Your task to perform on an android device: Go to sound settings Image 0: 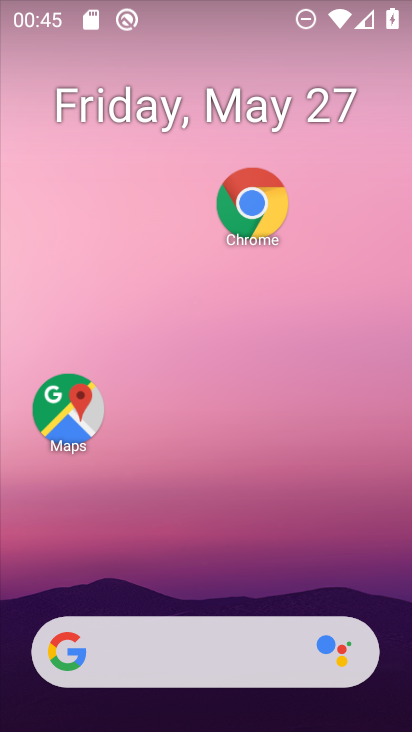
Step 0: drag from (173, 597) to (29, 52)
Your task to perform on an android device: Go to sound settings Image 1: 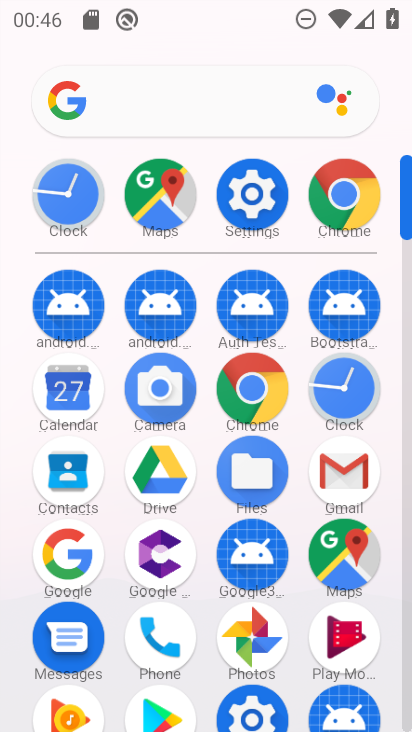
Step 1: click (243, 710)
Your task to perform on an android device: Go to sound settings Image 2: 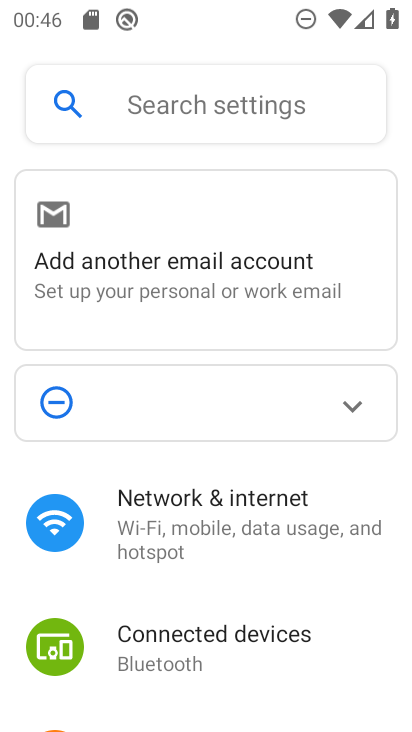
Step 2: drag from (185, 690) to (126, 131)
Your task to perform on an android device: Go to sound settings Image 3: 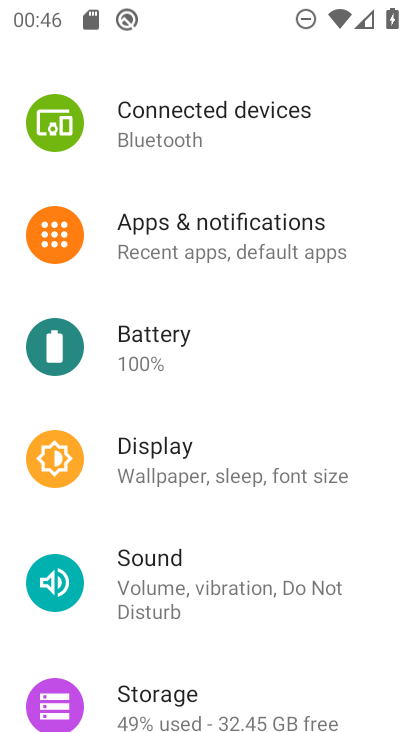
Step 3: click (119, 584)
Your task to perform on an android device: Go to sound settings Image 4: 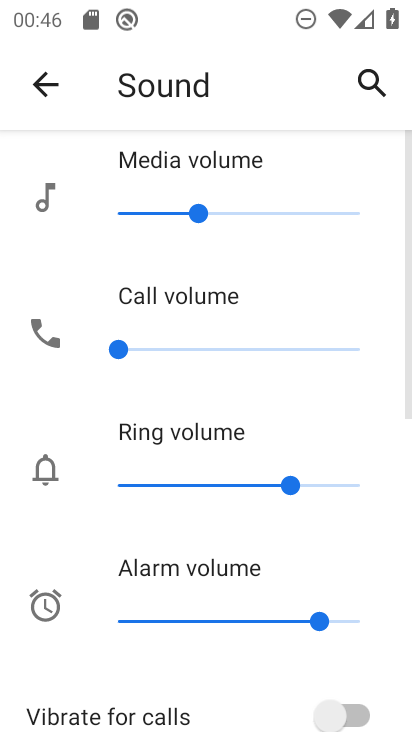
Step 4: task complete